Your task to perform on an android device: View the shopping cart on newegg. Search for "razer blade" on newegg, select the first entry, add it to the cart, then select checkout. Image 0: 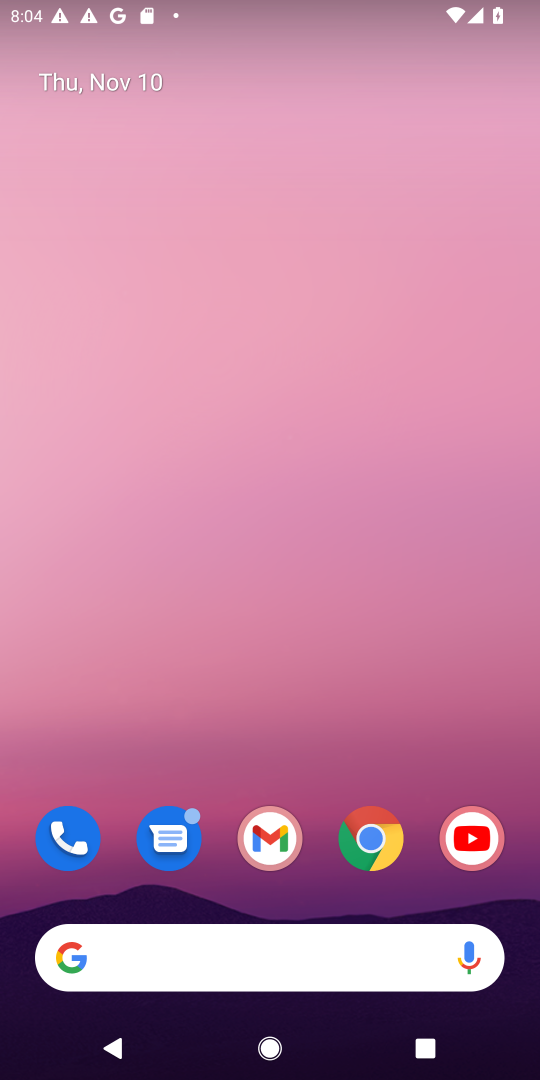
Step 0: drag from (320, 895) to (334, 12)
Your task to perform on an android device: View the shopping cart on newegg. Search for "razer blade" on newegg, select the first entry, add it to the cart, then select checkout. Image 1: 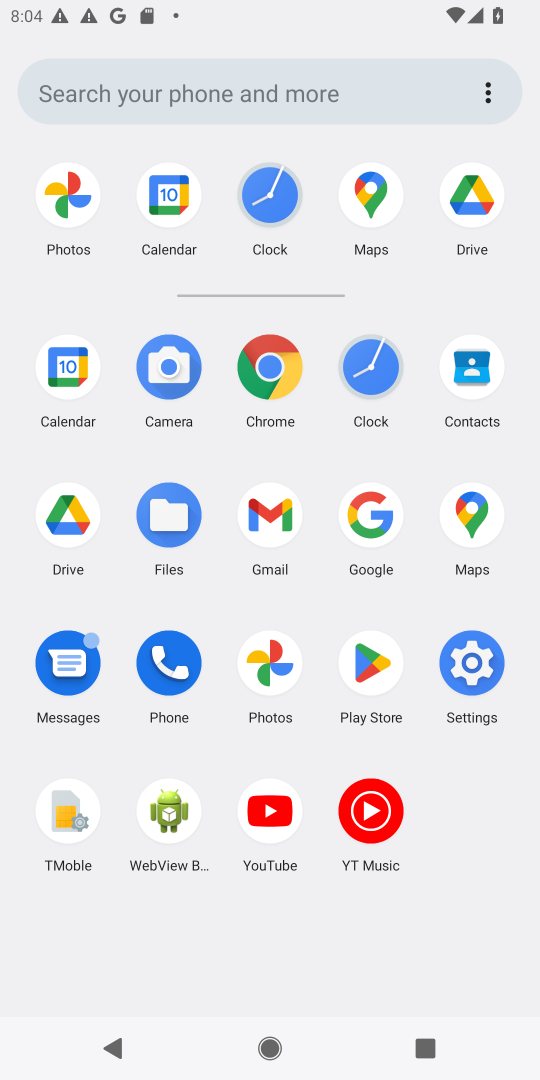
Step 1: click (273, 375)
Your task to perform on an android device: View the shopping cart on newegg. Search for "razer blade" on newegg, select the first entry, add it to the cart, then select checkout. Image 2: 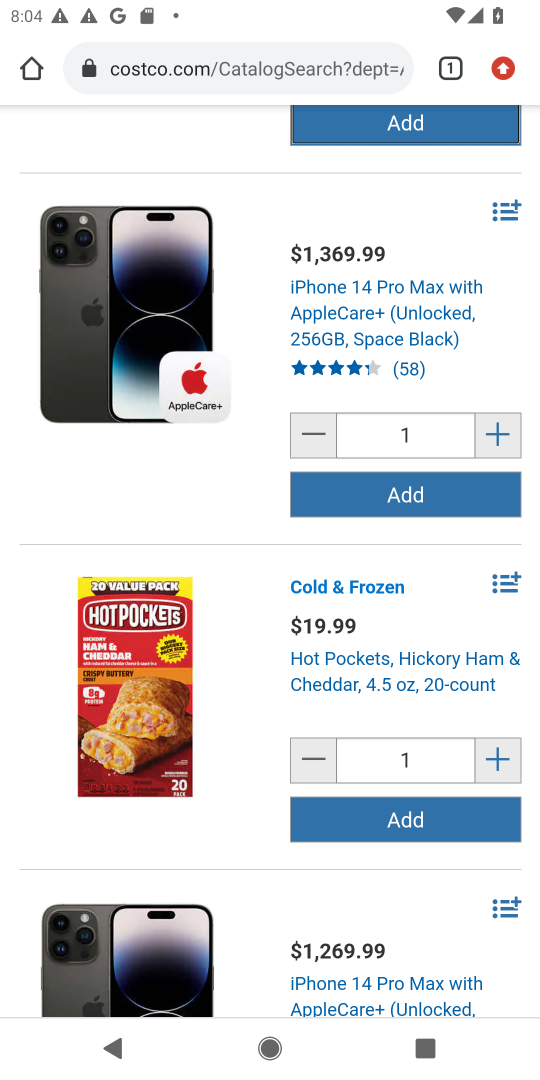
Step 2: click (301, 61)
Your task to perform on an android device: View the shopping cart on newegg. Search for "razer blade" on newegg, select the first entry, add it to the cart, then select checkout. Image 3: 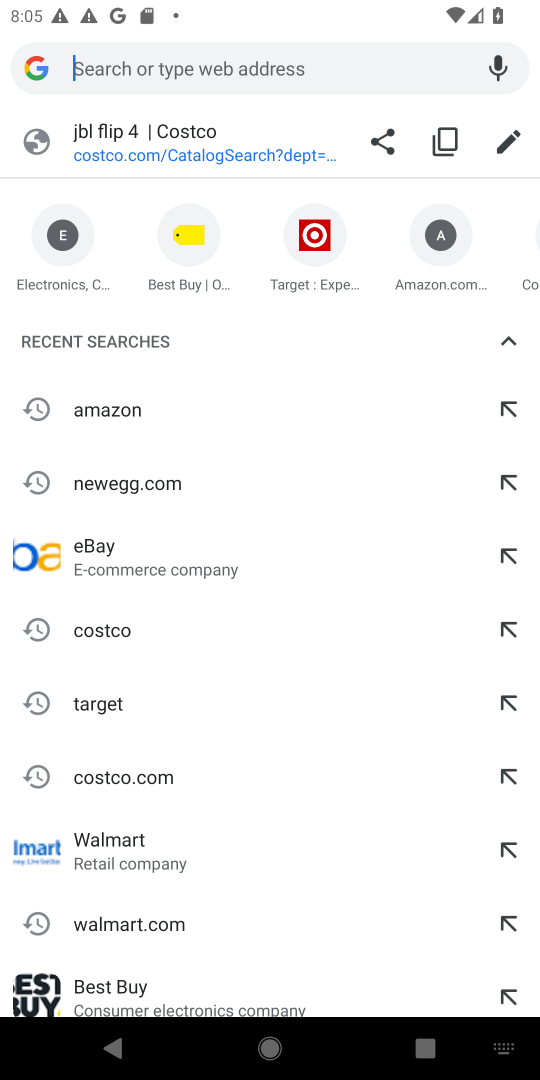
Step 3: type "newegg.com"
Your task to perform on an android device: View the shopping cart on newegg. Search for "razer blade" on newegg, select the first entry, add it to the cart, then select checkout. Image 4: 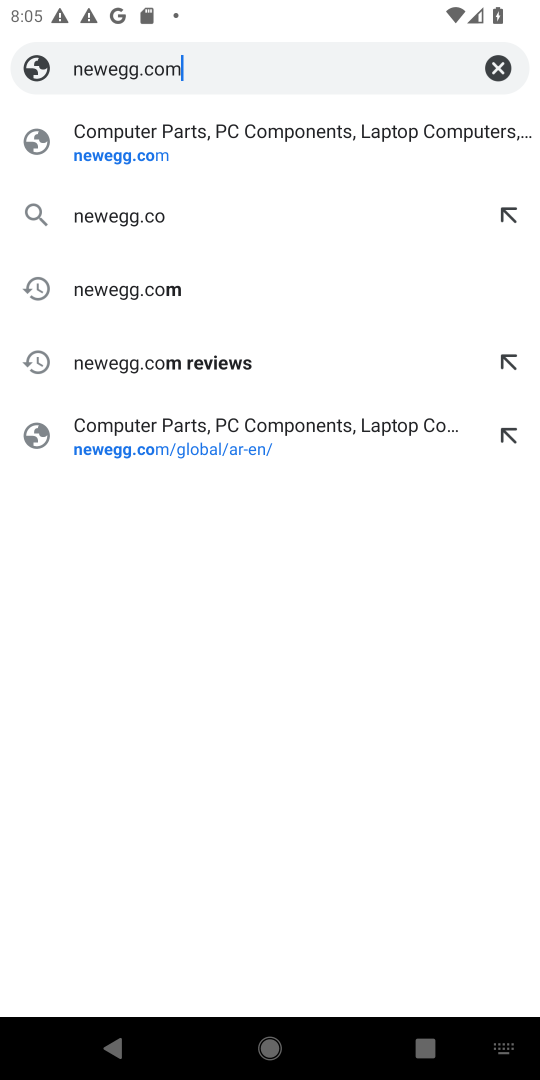
Step 4: press enter
Your task to perform on an android device: View the shopping cart on newegg. Search for "razer blade" on newegg, select the first entry, add it to the cart, then select checkout. Image 5: 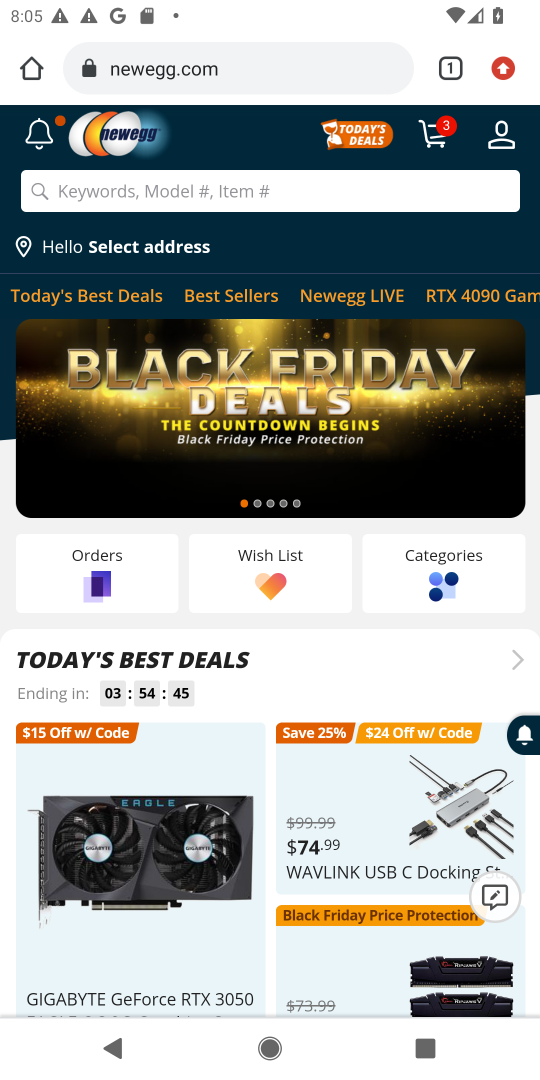
Step 5: click (440, 142)
Your task to perform on an android device: View the shopping cart on newegg. Search for "razer blade" on newegg, select the first entry, add it to the cart, then select checkout. Image 6: 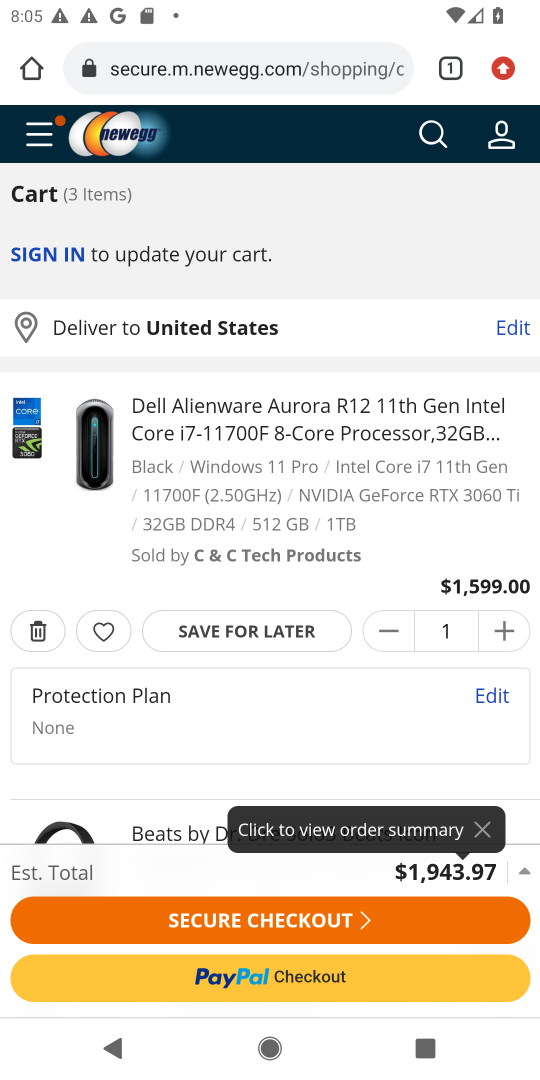
Step 6: click (436, 130)
Your task to perform on an android device: View the shopping cart on newegg. Search for "razer blade" on newegg, select the first entry, add it to the cart, then select checkout. Image 7: 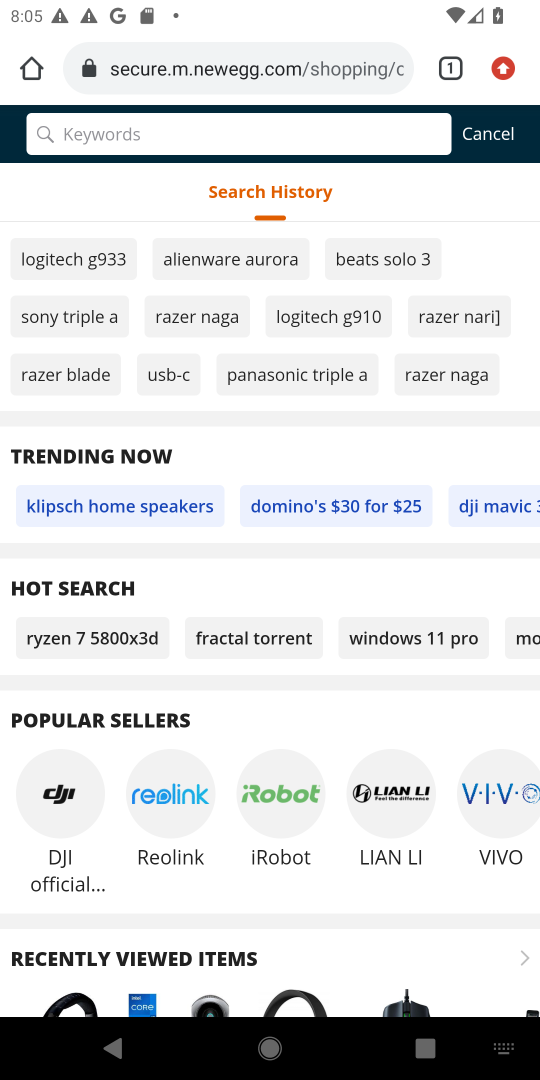
Step 7: type "razer blade"
Your task to perform on an android device: View the shopping cart on newegg. Search for "razer blade" on newegg, select the first entry, add it to the cart, then select checkout. Image 8: 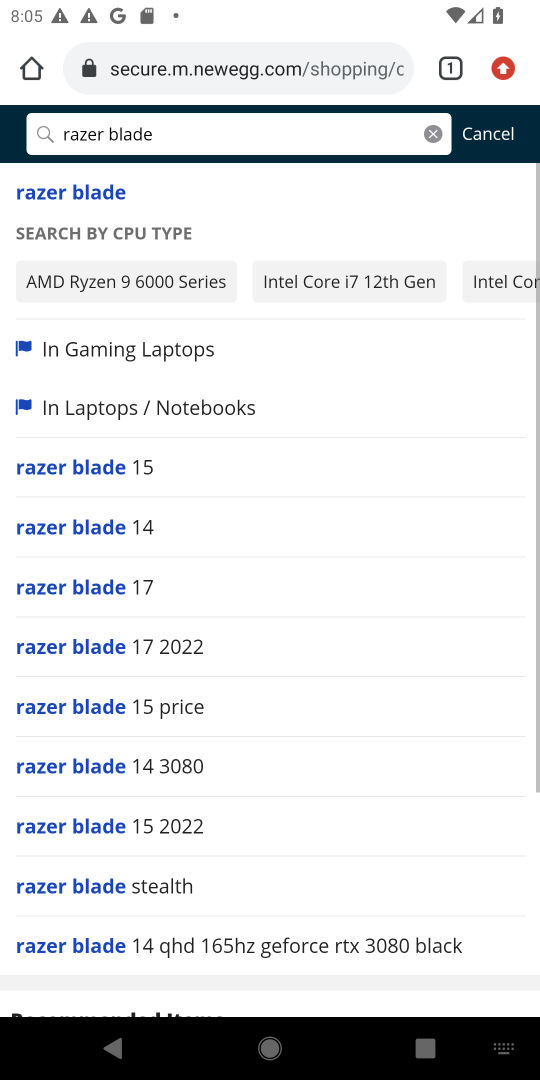
Step 8: press enter
Your task to perform on an android device: View the shopping cart on newegg. Search for "razer blade" on newegg, select the first entry, add it to the cart, then select checkout. Image 9: 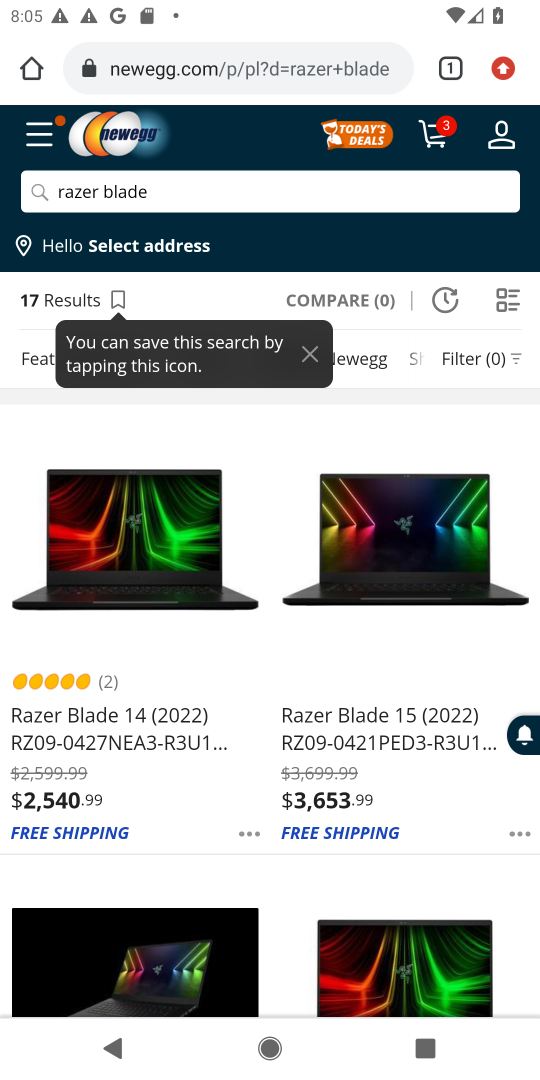
Step 9: click (145, 725)
Your task to perform on an android device: View the shopping cart on newegg. Search for "razer blade" on newegg, select the first entry, add it to the cart, then select checkout. Image 10: 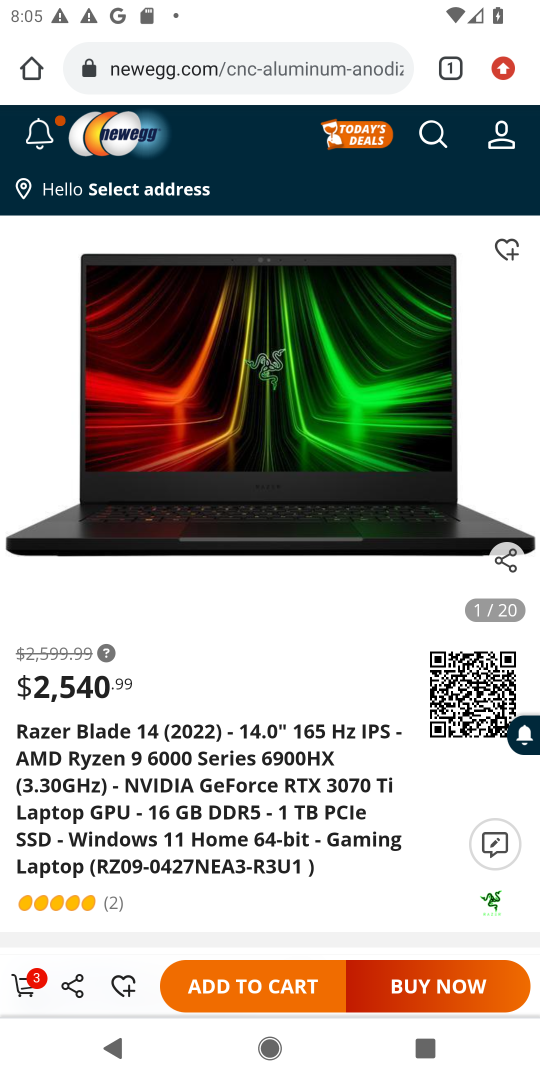
Step 10: click (212, 980)
Your task to perform on an android device: View the shopping cart on newegg. Search for "razer blade" on newegg, select the first entry, add it to the cart, then select checkout. Image 11: 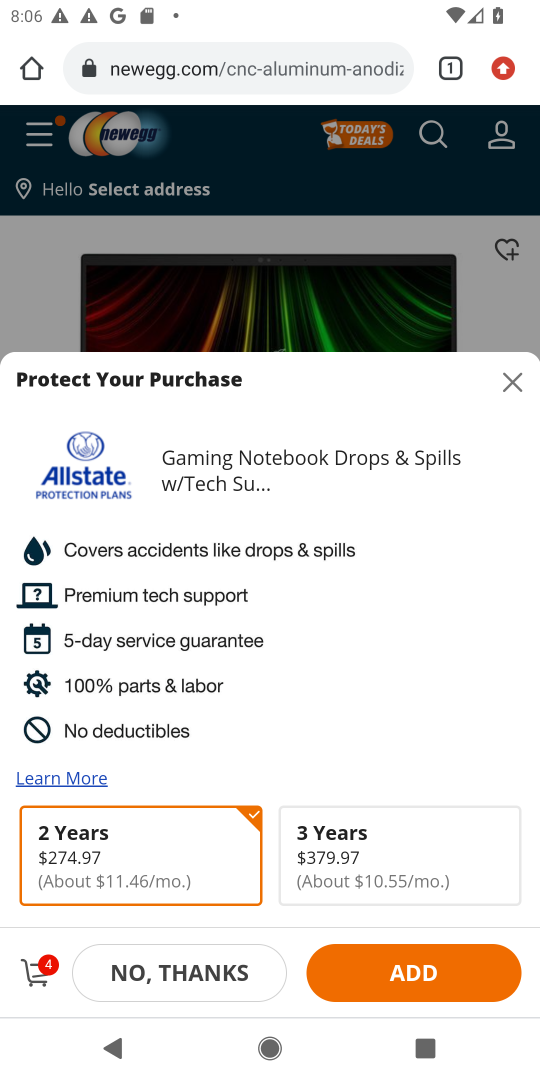
Step 11: click (41, 969)
Your task to perform on an android device: View the shopping cart on newegg. Search for "razer blade" on newegg, select the first entry, add it to the cart, then select checkout. Image 12: 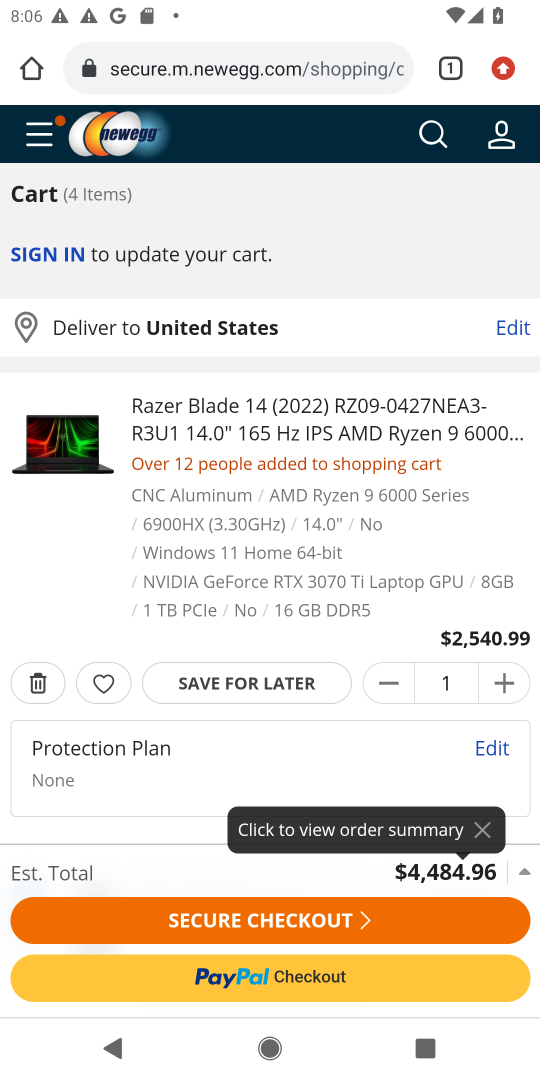
Step 12: click (418, 913)
Your task to perform on an android device: View the shopping cart on newegg. Search for "razer blade" on newegg, select the first entry, add it to the cart, then select checkout. Image 13: 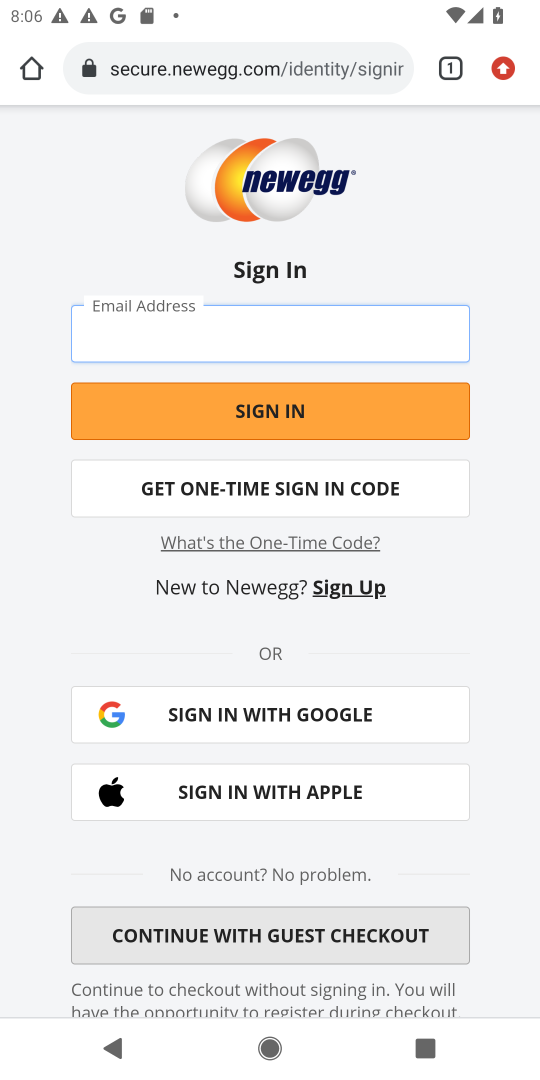
Step 13: task complete